Your task to perform on an android device: change the clock style Image 0: 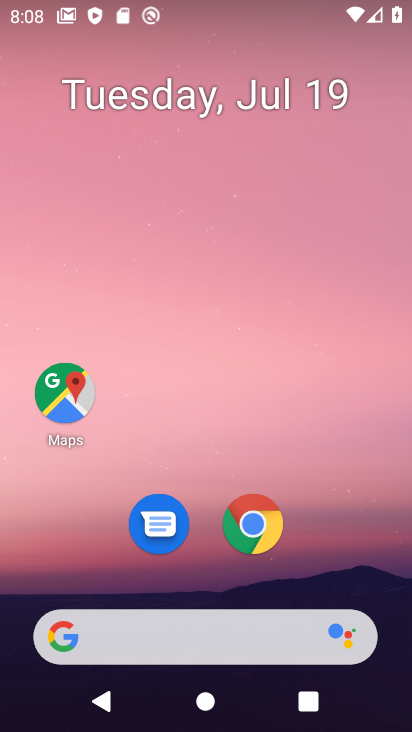
Step 0: drag from (226, 608) to (344, 95)
Your task to perform on an android device: change the clock style Image 1: 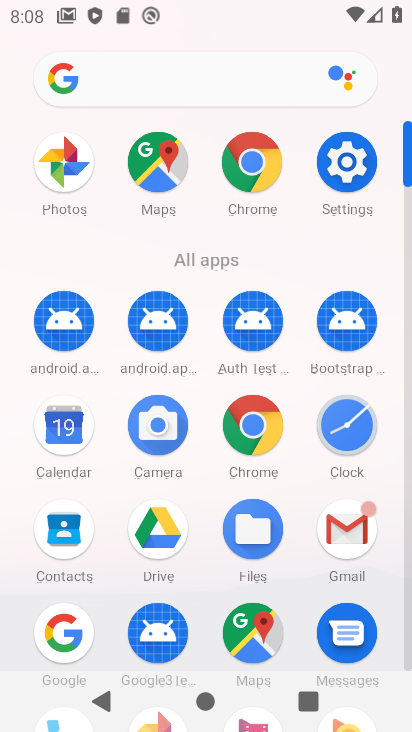
Step 1: click (344, 444)
Your task to perform on an android device: change the clock style Image 2: 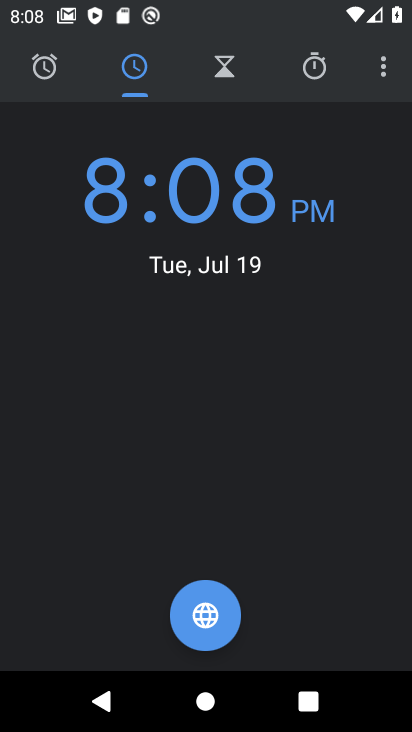
Step 2: click (382, 69)
Your task to perform on an android device: change the clock style Image 3: 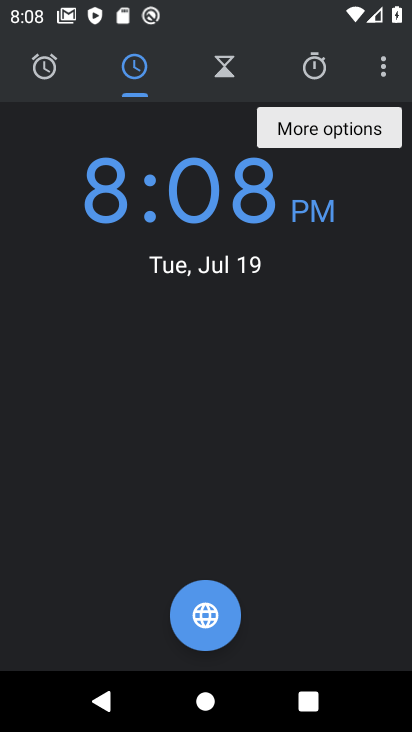
Step 3: click (379, 73)
Your task to perform on an android device: change the clock style Image 4: 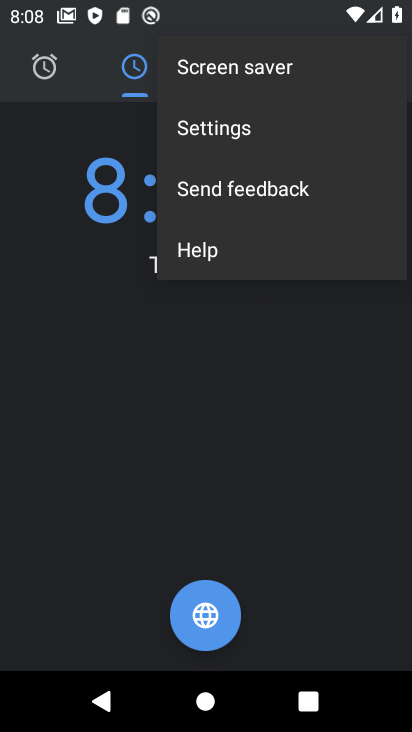
Step 4: click (222, 134)
Your task to perform on an android device: change the clock style Image 5: 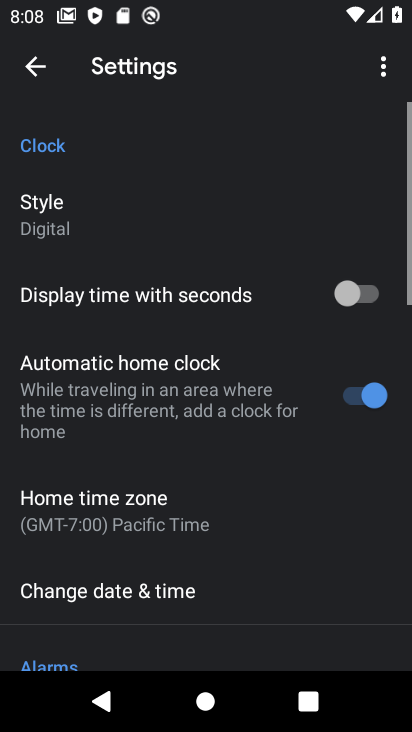
Step 5: click (61, 223)
Your task to perform on an android device: change the clock style Image 6: 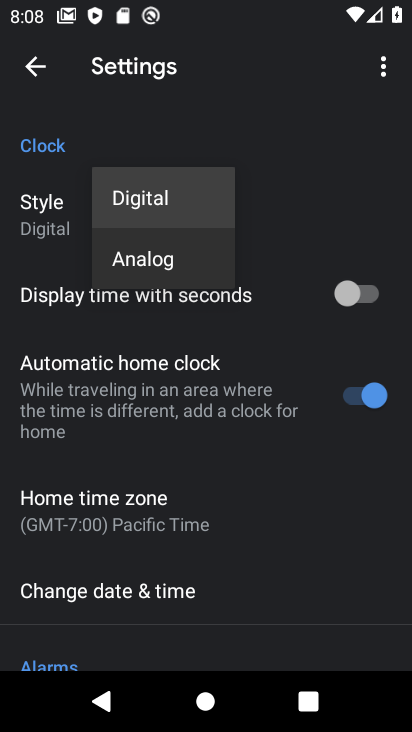
Step 6: click (152, 266)
Your task to perform on an android device: change the clock style Image 7: 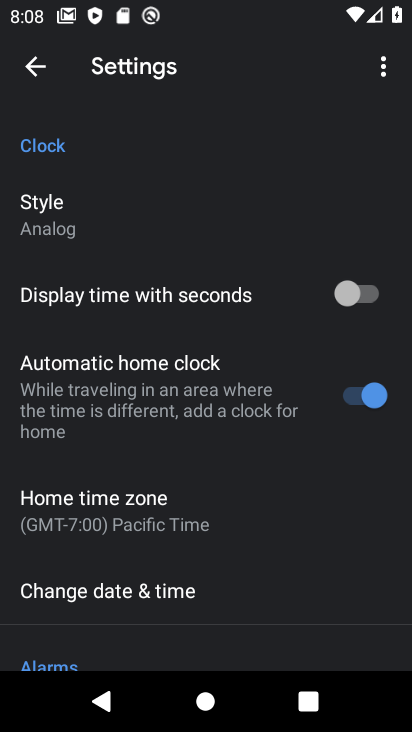
Step 7: task complete